Your task to perform on an android device: Go to location settings Image 0: 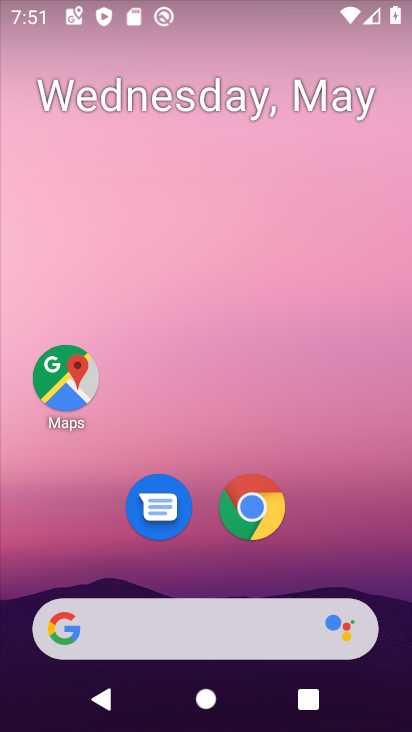
Step 0: drag from (310, 575) to (310, 212)
Your task to perform on an android device: Go to location settings Image 1: 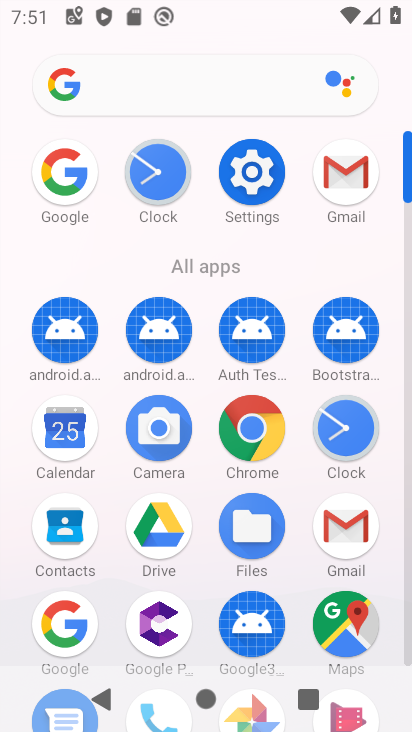
Step 1: click (239, 166)
Your task to perform on an android device: Go to location settings Image 2: 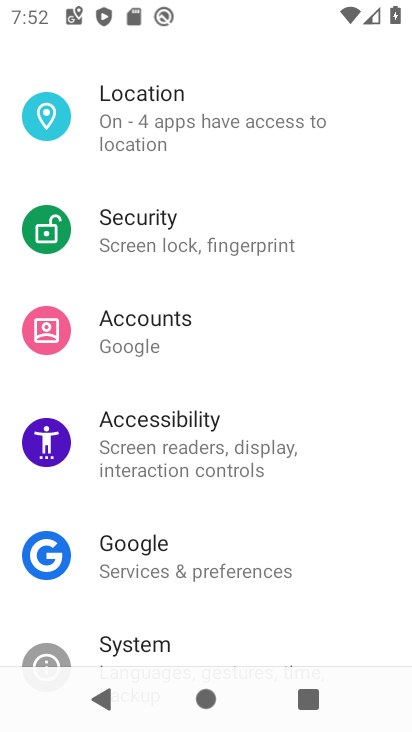
Step 2: click (137, 109)
Your task to perform on an android device: Go to location settings Image 3: 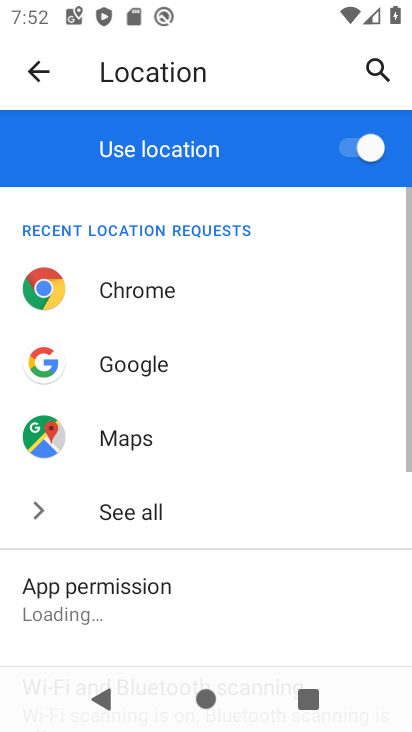
Step 3: task complete